Your task to perform on an android device: Open Youtube and go to "Your channel" Image 0: 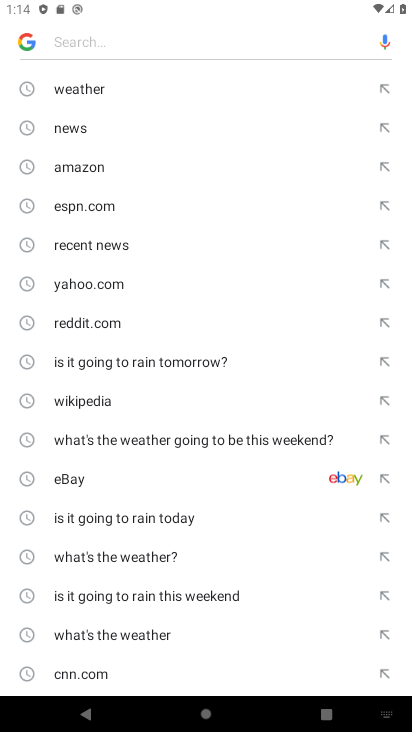
Step 0: press home button
Your task to perform on an android device: Open Youtube and go to "Your channel" Image 1: 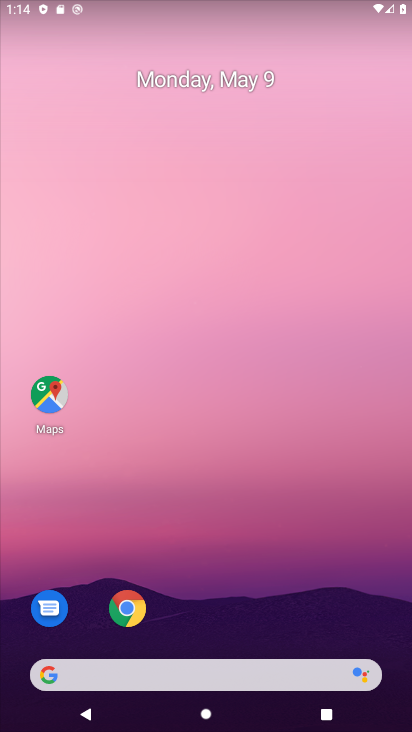
Step 1: drag from (331, 497) to (193, 46)
Your task to perform on an android device: Open Youtube and go to "Your channel" Image 2: 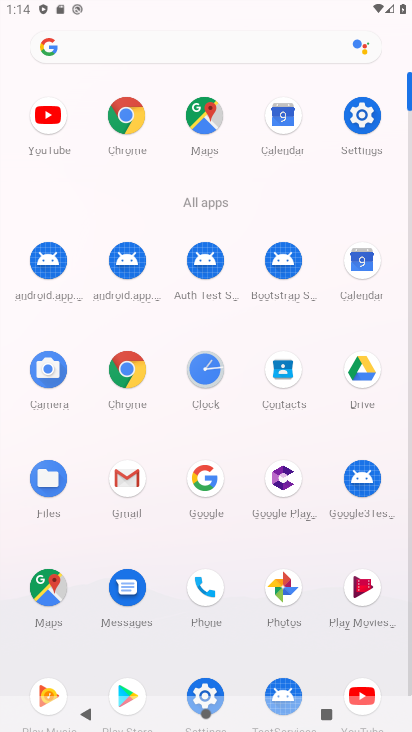
Step 2: click (52, 110)
Your task to perform on an android device: Open Youtube and go to "Your channel" Image 3: 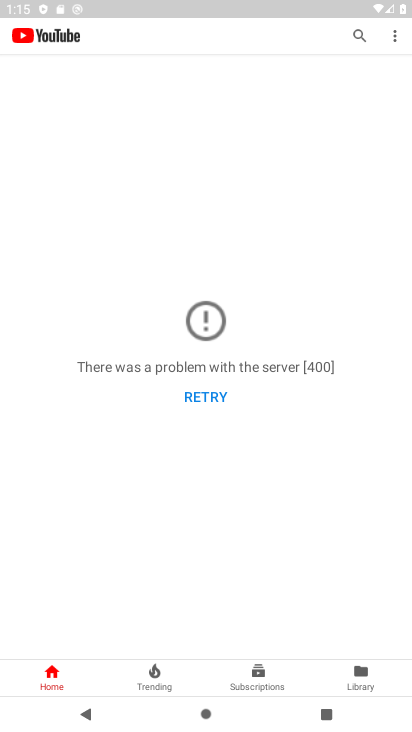
Step 3: task complete